Your task to perform on an android device: toggle improve location accuracy Image 0: 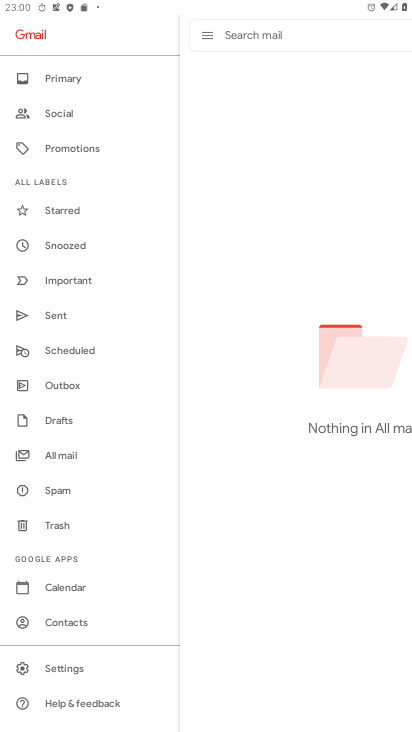
Step 0: press home button
Your task to perform on an android device: toggle improve location accuracy Image 1: 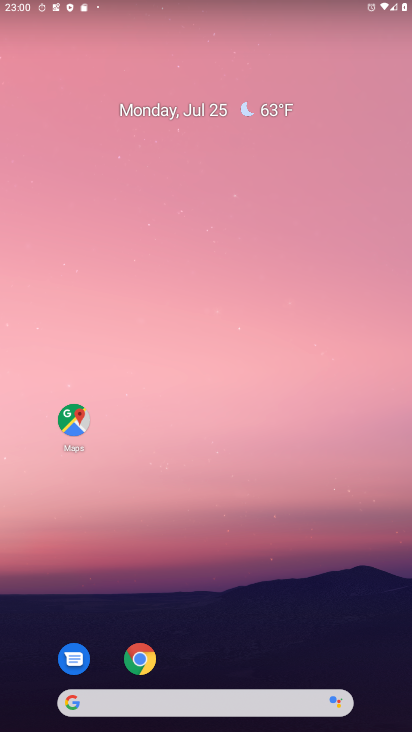
Step 1: drag from (220, 692) to (234, 241)
Your task to perform on an android device: toggle improve location accuracy Image 2: 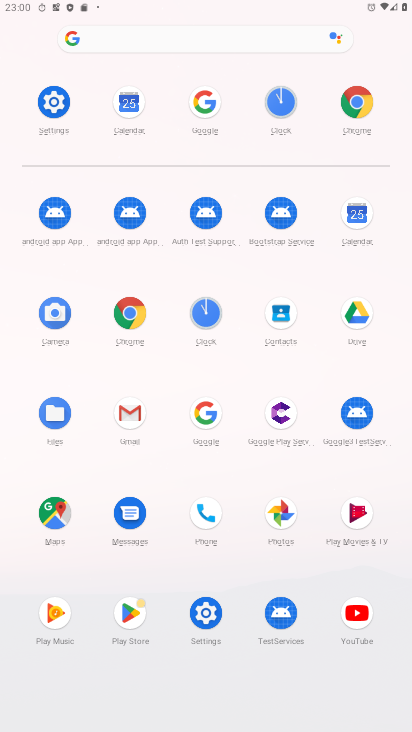
Step 2: click (48, 102)
Your task to perform on an android device: toggle improve location accuracy Image 3: 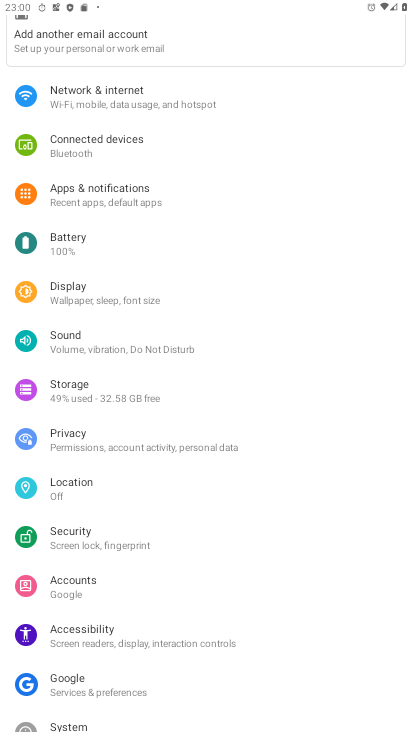
Step 3: click (67, 488)
Your task to perform on an android device: toggle improve location accuracy Image 4: 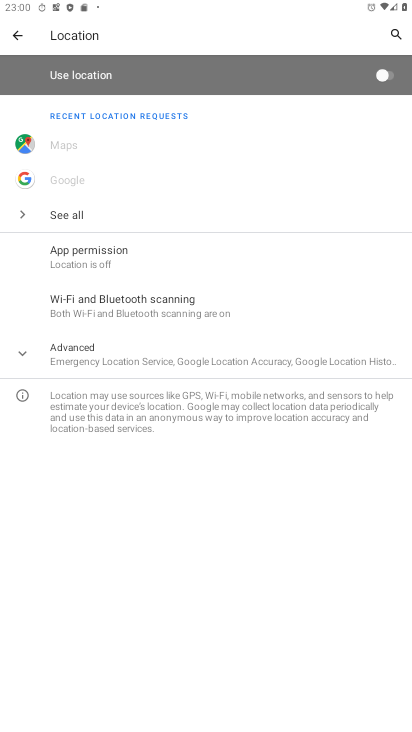
Step 4: click (113, 356)
Your task to perform on an android device: toggle improve location accuracy Image 5: 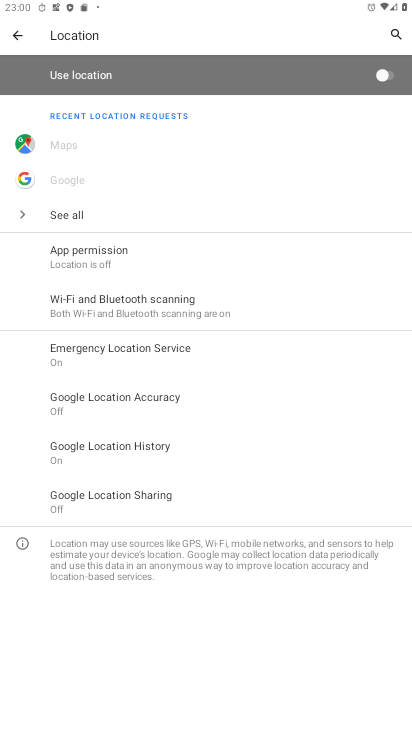
Step 5: click (136, 396)
Your task to perform on an android device: toggle improve location accuracy Image 6: 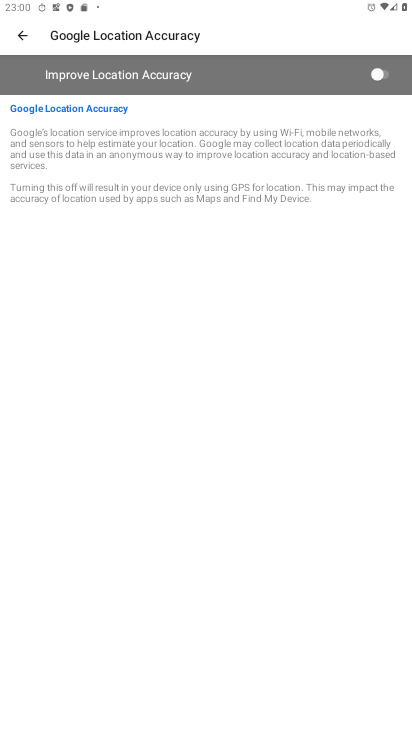
Step 6: click (380, 77)
Your task to perform on an android device: toggle improve location accuracy Image 7: 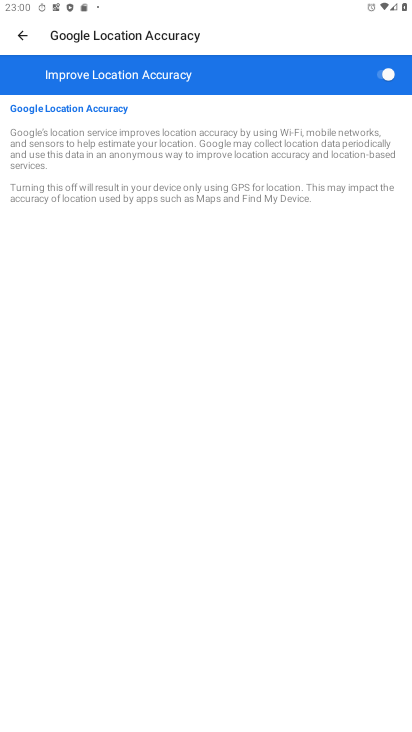
Step 7: task complete